Your task to perform on an android device: turn pop-ups off in chrome Image 0: 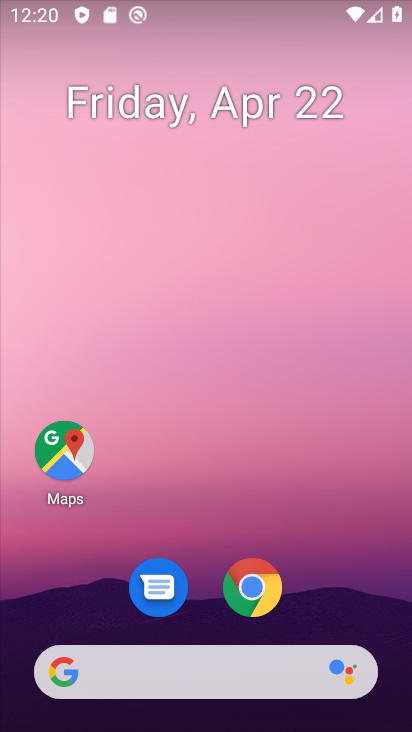
Step 0: drag from (187, 586) to (330, 111)
Your task to perform on an android device: turn pop-ups off in chrome Image 1: 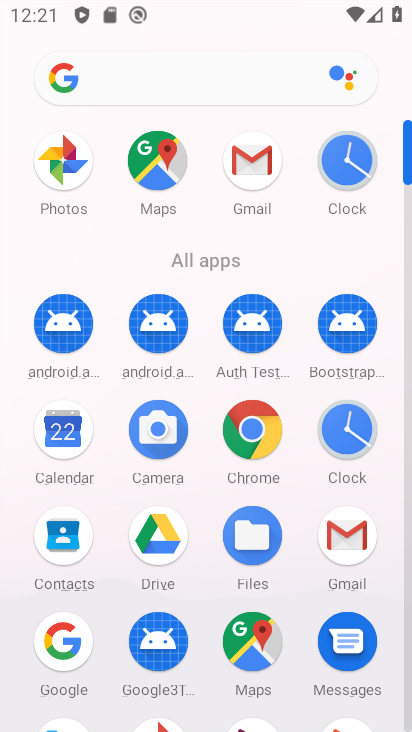
Step 1: click (260, 435)
Your task to perform on an android device: turn pop-ups off in chrome Image 2: 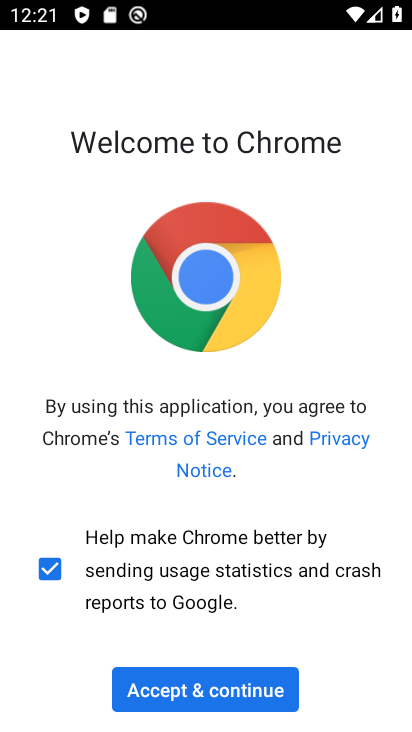
Step 2: click (222, 690)
Your task to perform on an android device: turn pop-ups off in chrome Image 3: 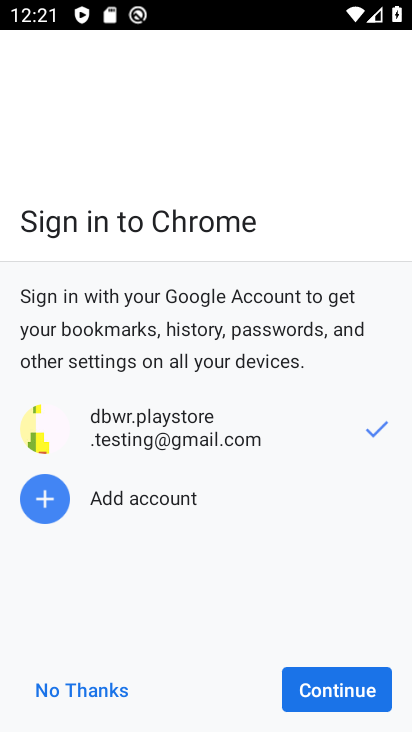
Step 3: click (315, 689)
Your task to perform on an android device: turn pop-ups off in chrome Image 4: 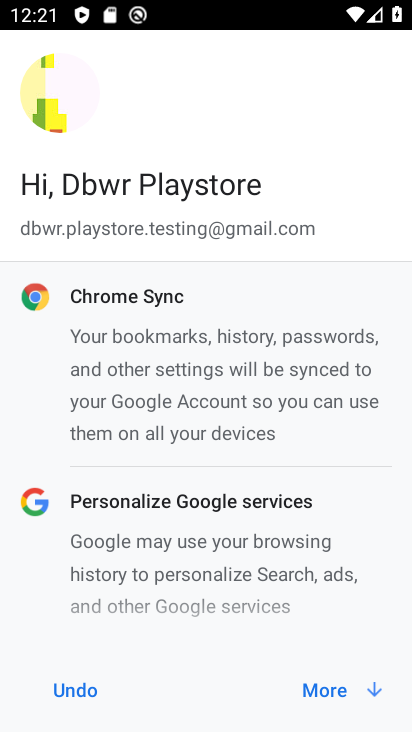
Step 4: click (315, 689)
Your task to perform on an android device: turn pop-ups off in chrome Image 5: 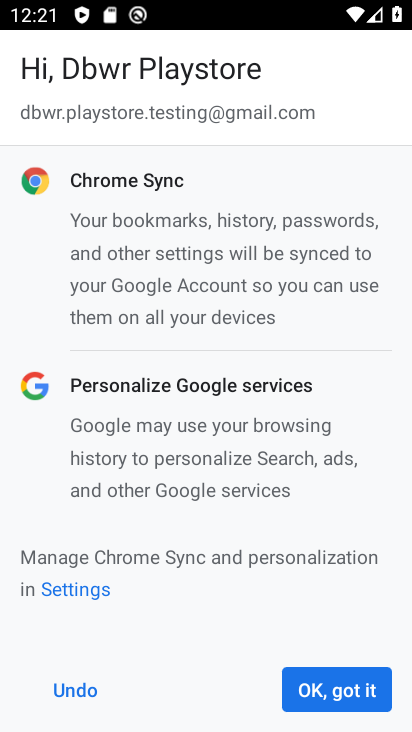
Step 5: click (315, 689)
Your task to perform on an android device: turn pop-ups off in chrome Image 6: 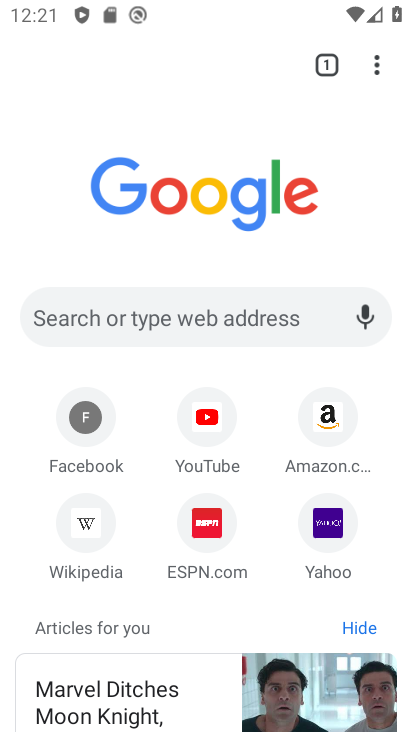
Step 6: click (370, 65)
Your task to perform on an android device: turn pop-ups off in chrome Image 7: 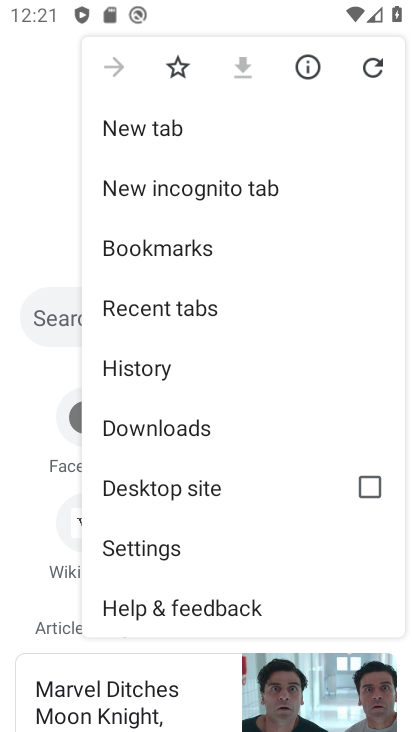
Step 7: click (151, 547)
Your task to perform on an android device: turn pop-ups off in chrome Image 8: 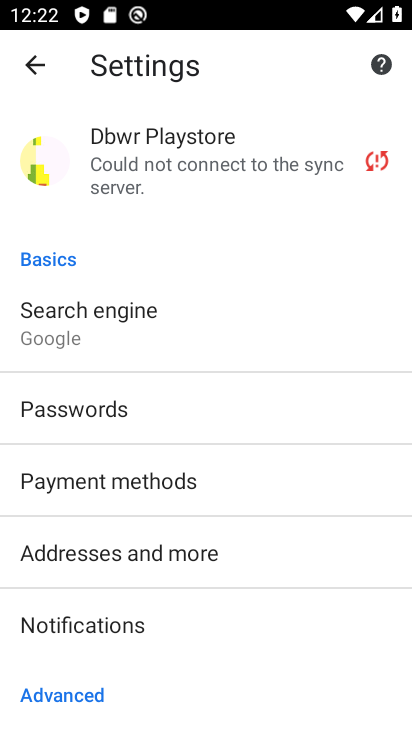
Step 8: drag from (162, 660) to (304, 133)
Your task to perform on an android device: turn pop-ups off in chrome Image 9: 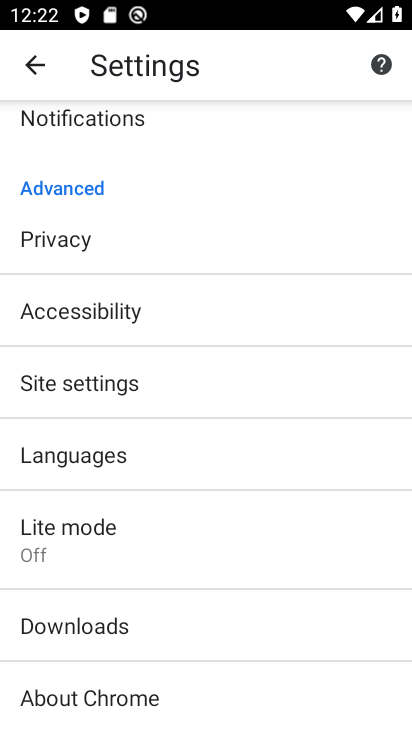
Step 9: click (99, 386)
Your task to perform on an android device: turn pop-ups off in chrome Image 10: 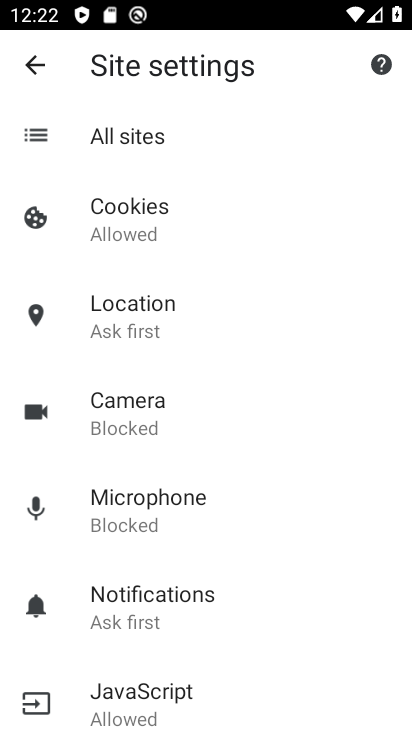
Step 10: drag from (223, 636) to (281, 214)
Your task to perform on an android device: turn pop-ups off in chrome Image 11: 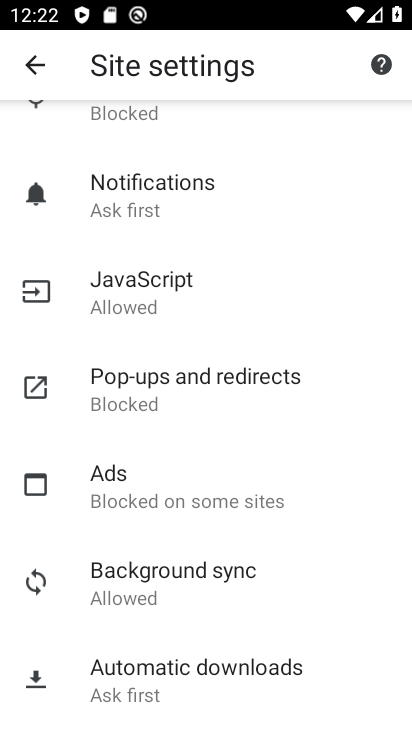
Step 11: click (185, 378)
Your task to perform on an android device: turn pop-ups off in chrome Image 12: 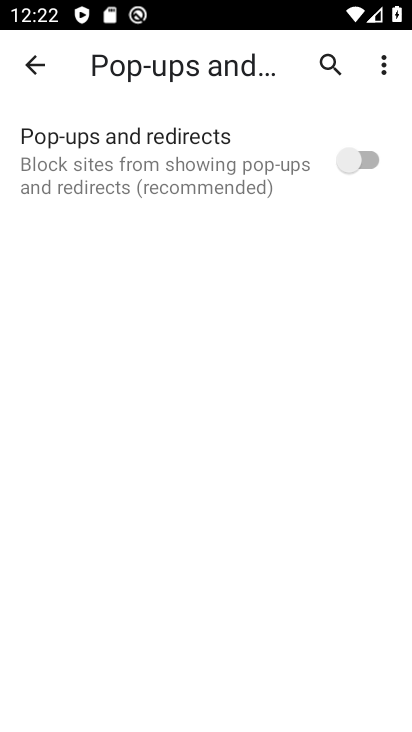
Step 12: task complete